Your task to perform on an android device: toggle location history Image 0: 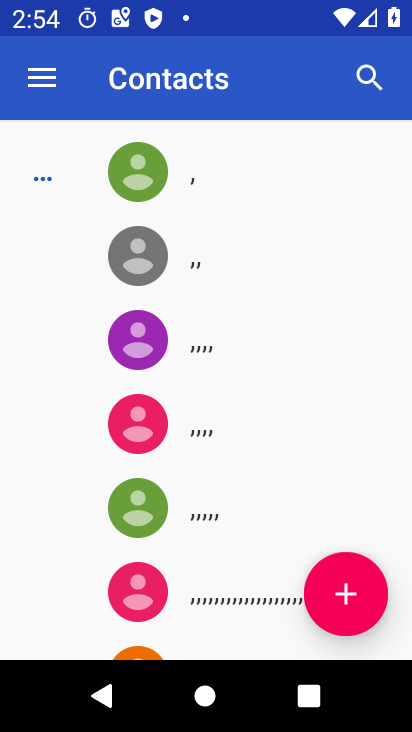
Step 0: press home button
Your task to perform on an android device: toggle location history Image 1: 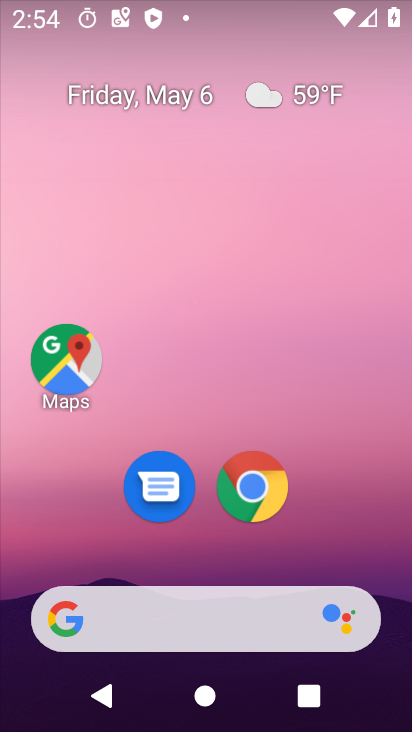
Step 1: click (62, 368)
Your task to perform on an android device: toggle location history Image 2: 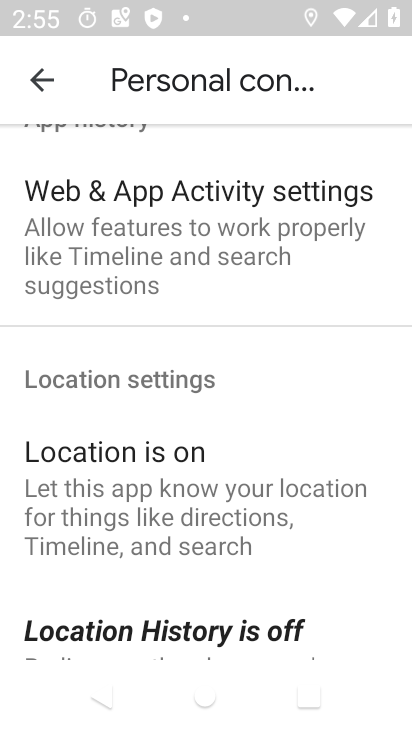
Step 2: drag from (172, 526) to (182, 290)
Your task to perform on an android device: toggle location history Image 3: 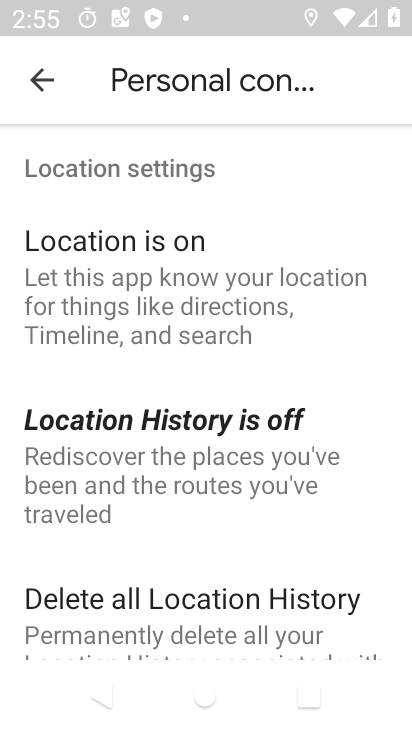
Step 3: click (184, 418)
Your task to perform on an android device: toggle location history Image 4: 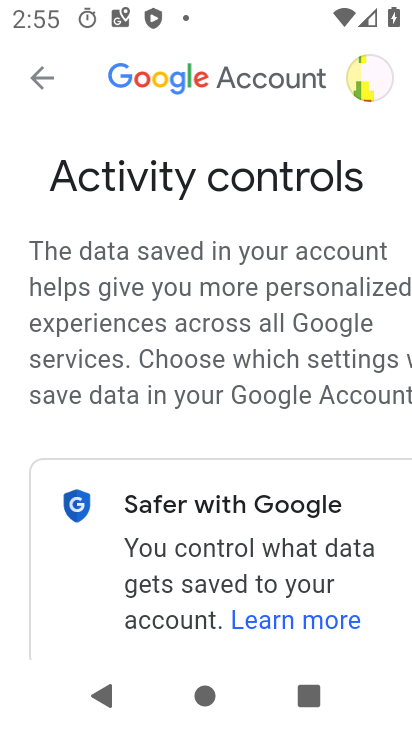
Step 4: drag from (250, 423) to (233, 129)
Your task to perform on an android device: toggle location history Image 5: 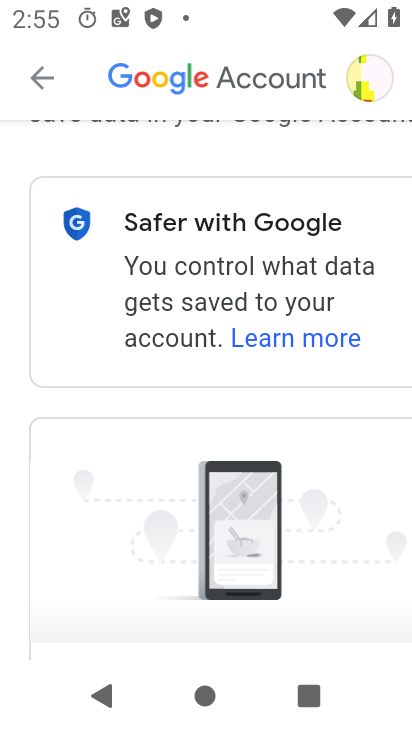
Step 5: drag from (124, 510) to (147, 130)
Your task to perform on an android device: toggle location history Image 6: 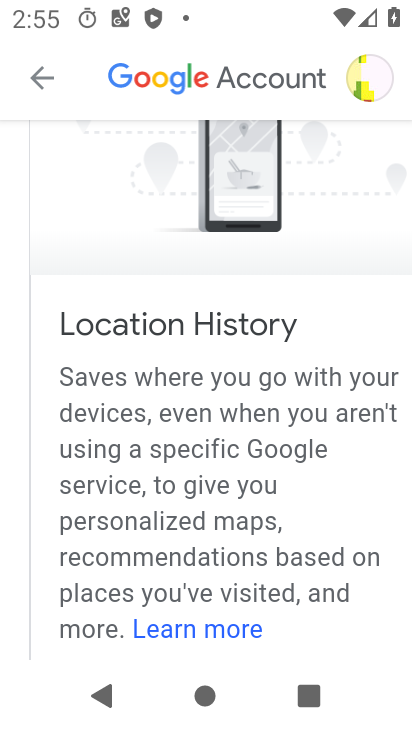
Step 6: drag from (120, 487) to (137, 185)
Your task to perform on an android device: toggle location history Image 7: 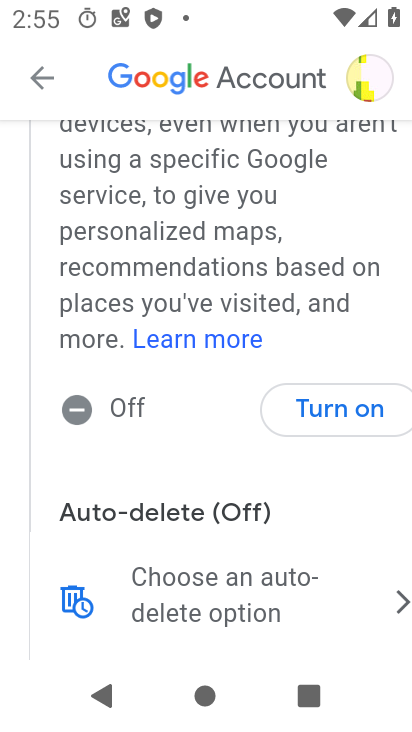
Step 7: click (326, 409)
Your task to perform on an android device: toggle location history Image 8: 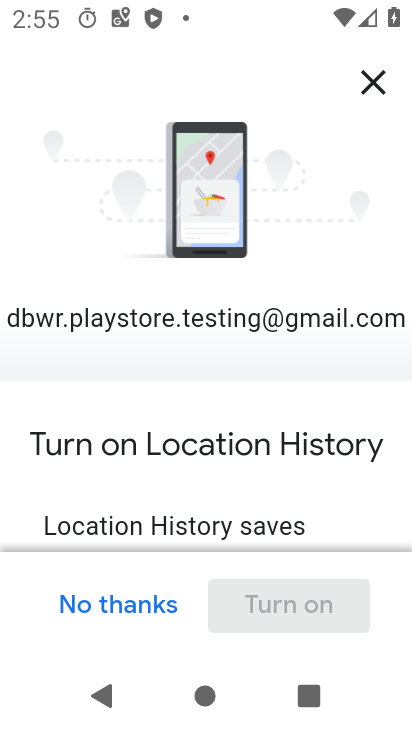
Step 8: drag from (264, 497) to (264, 71)
Your task to perform on an android device: toggle location history Image 9: 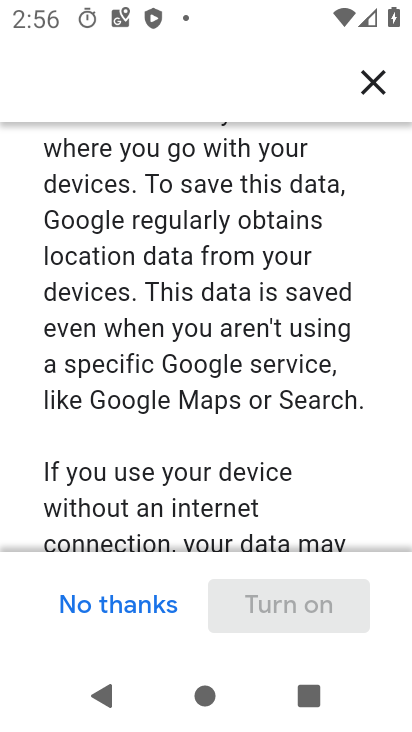
Step 9: drag from (218, 397) to (204, 75)
Your task to perform on an android device: toggle location history Image 10: 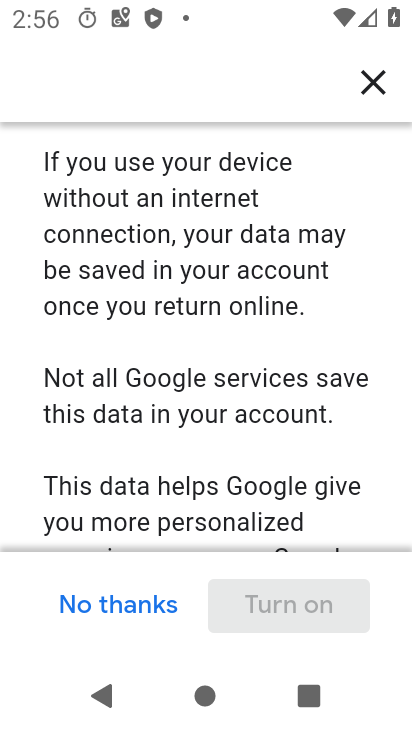
Step 10: drag from (240, 441) to (230, 114)
Your task to perform on an android device: toggle location history Image 11: 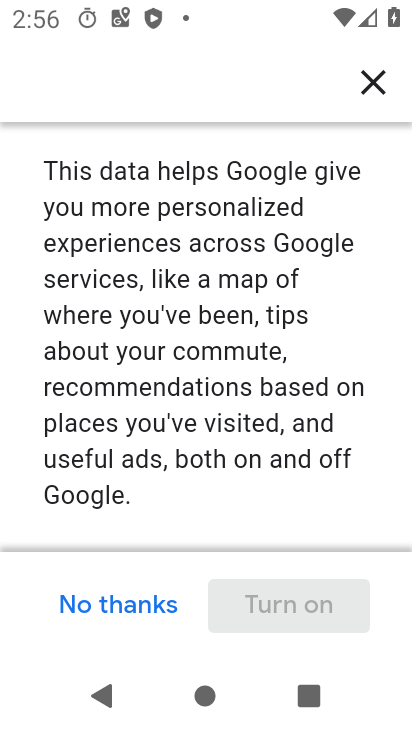
Step 11: drag from (220, 465) to (232, 37)
Your task to perform on an android device: toggle location history Image 12: 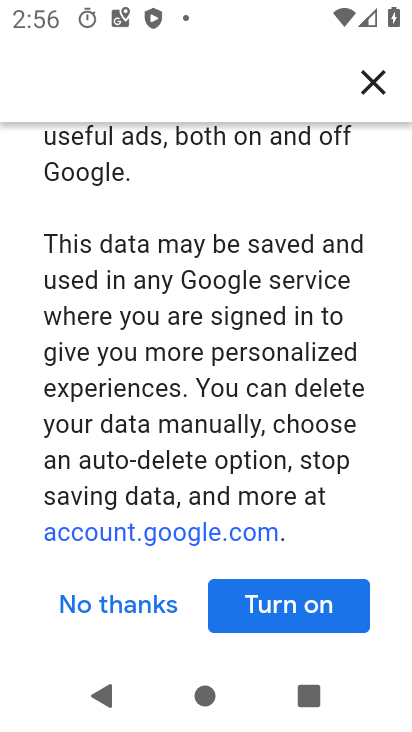
Step 12: click (219, 442)
Your task to perform on an android device: toggle location history Image 13: 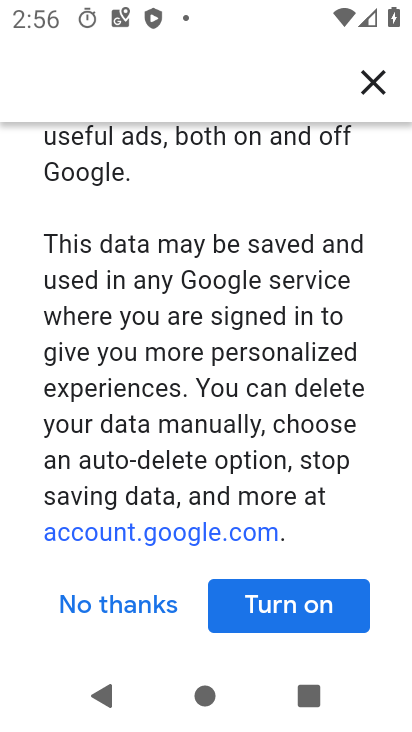
Step 13: click (256, 598)
Your task to perform on an android device: toggle location history Image 14: 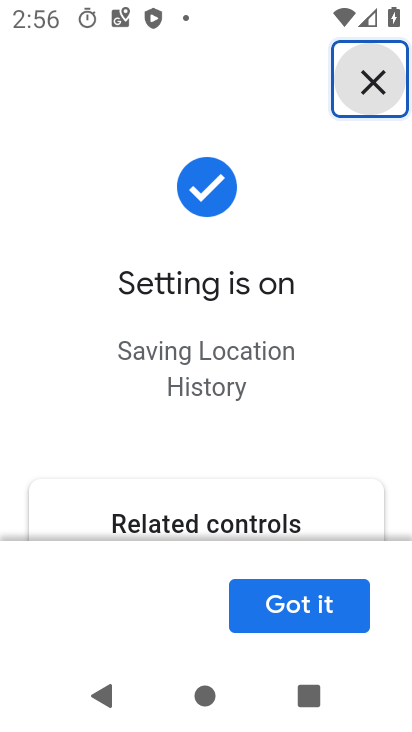
Step 14: click (289, 609)
Your task to perform on an android device: toggle location history Image 15: 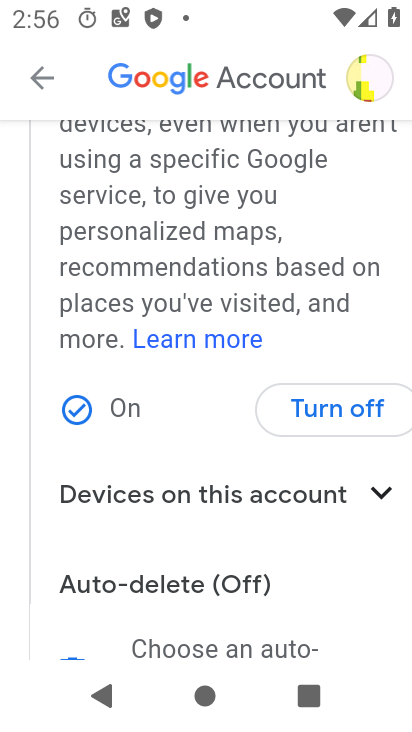
Step 15: task complete